Your task to perform on an android device: set default search engine in the chrome app Image 0: 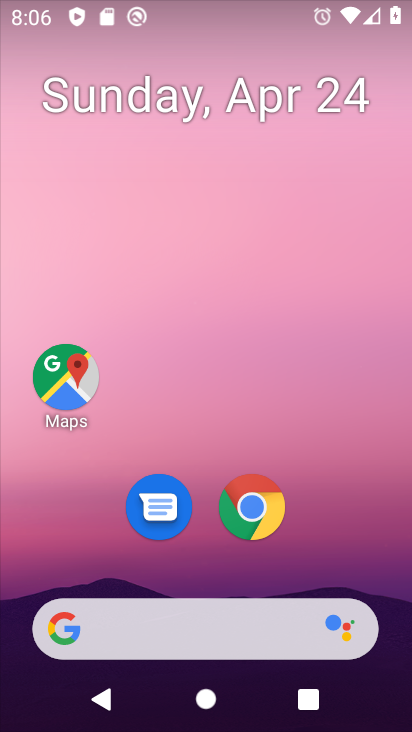
Step 0: drag from (399, 619) to (348, 232)
Your task to perform on an android device: set default search engine in the chrome app Image 1: 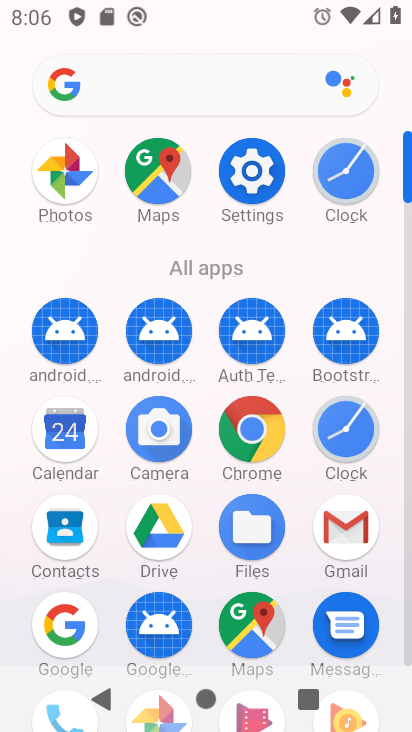
Step 1: click (264, 412)
Your task to perform on an android device: set default search engine in the chrome app Image 2: 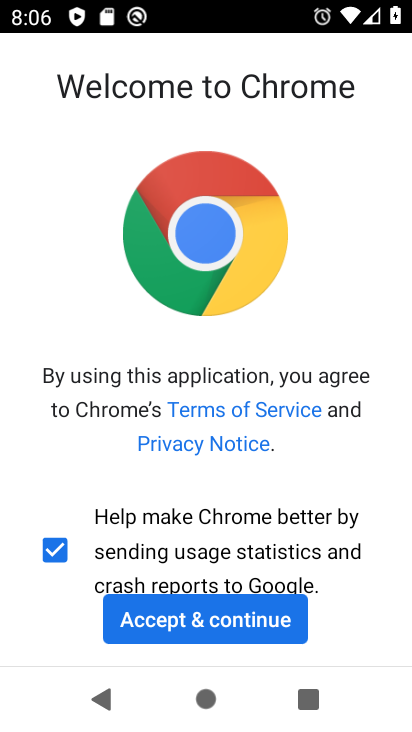
Step 2: click (307, 600)
Your task to perform on an android device: set default search engine in the chrome app Image 3: 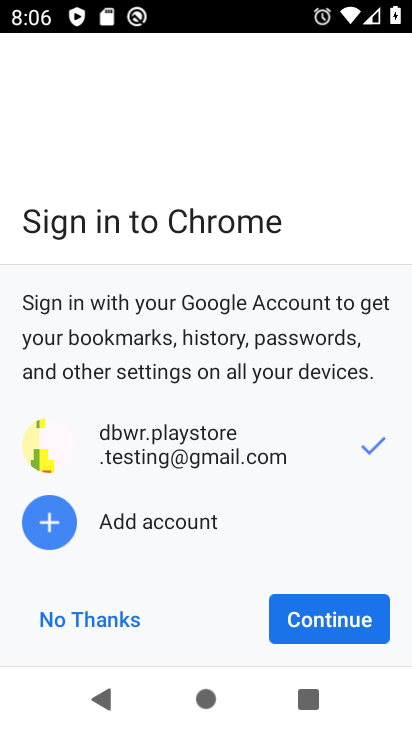
Step 3: click (329, 615)
Your task to perform on an android device: set default search engine in the chrome app Image 4: 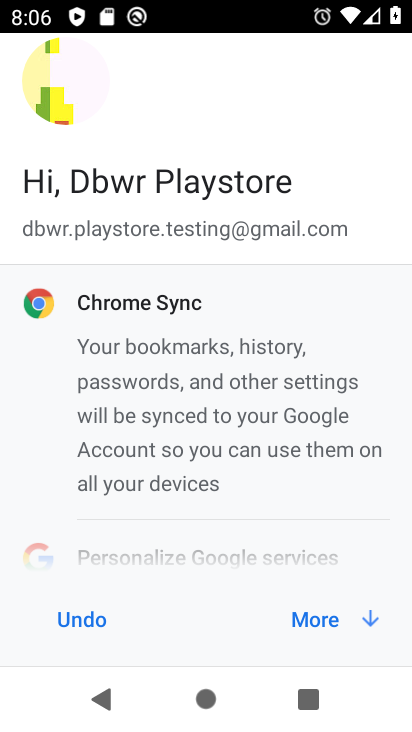
Step 4: click (329, 615)
Your task to perform on an android device: set default search engine in the chrome app Image 5: 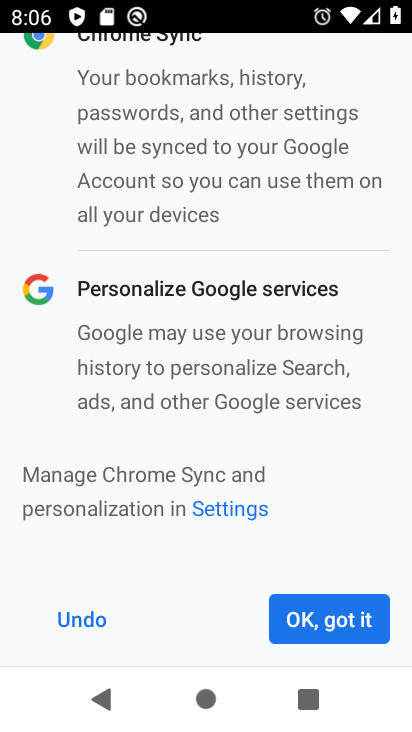
Step 5: click (329, 615)
Your task to perform on an android device: set default search engine in the chrome app Image 6: 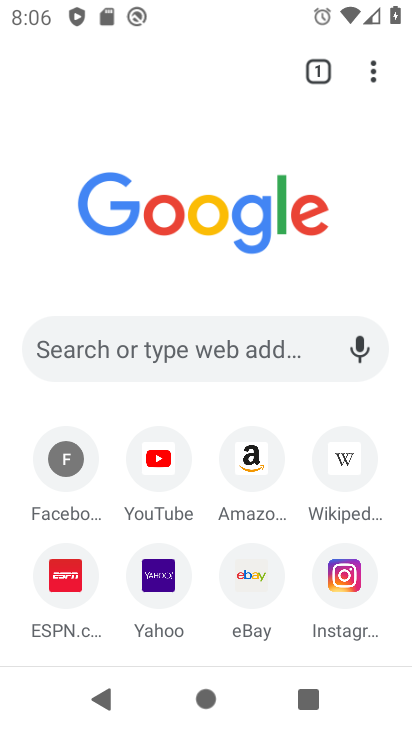
Step 6: drag from (387, 101) to (174, 494)
Your task to perform on an android device: set default search engine in the chrome app Image 7: 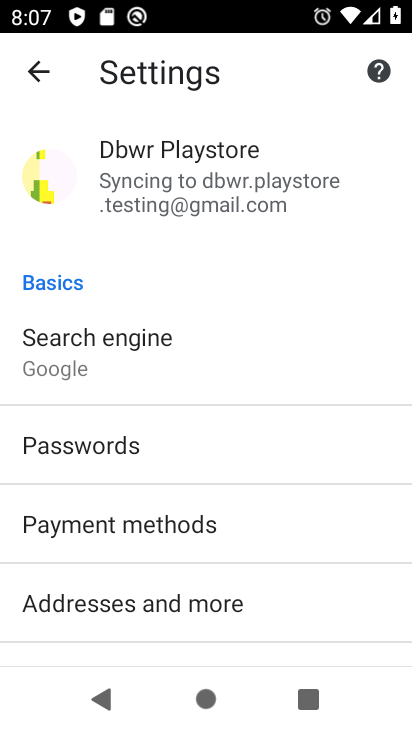
Step 7: click (188, 377)
Your task to perform on an android device: set default search engine in the chrome app Image 8: 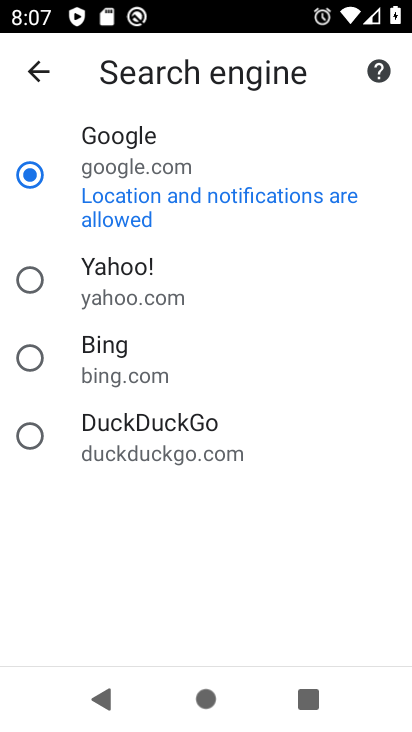
Step 8: click (173, 290)
Your task to perform on an android device: set default search engine in the chrome app Image 9: 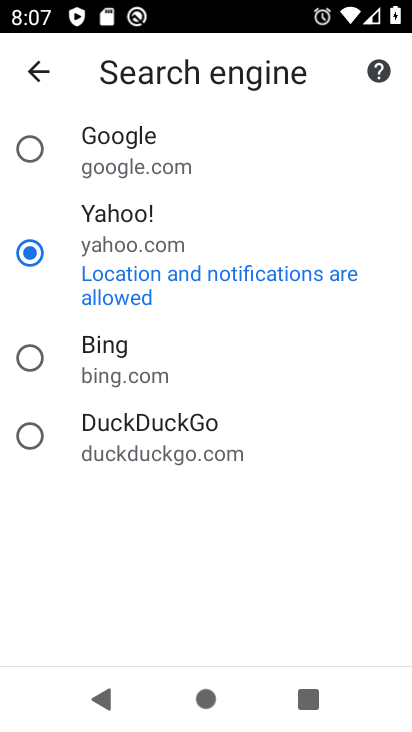
Step 9: task complete